Your task to perform on an android device: turn on data saver in the chrome app Image 0: 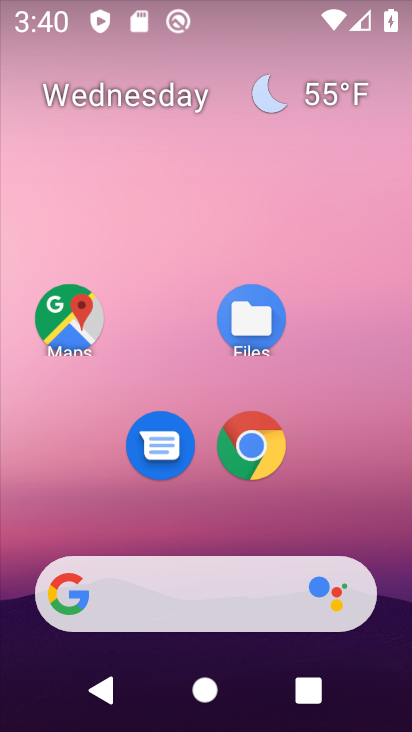
Step 0: click (224, 452)
Your task to perform on an android device: turn on data saver in the chrome app Image 1: 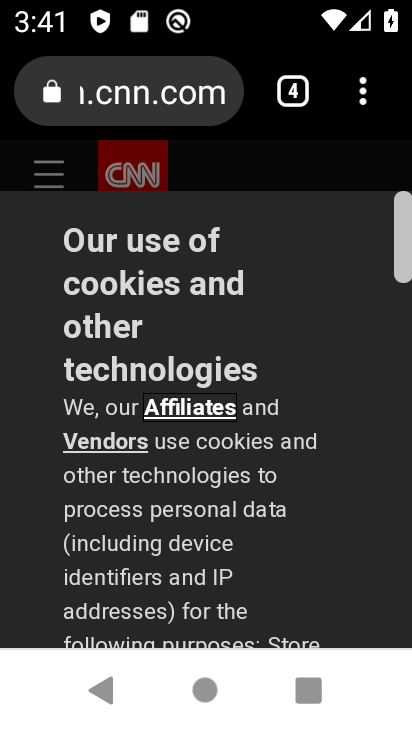
Step 1: click (356, 83)
Your task to perform on an android device: turn on data saver in the chrome app Image 2: 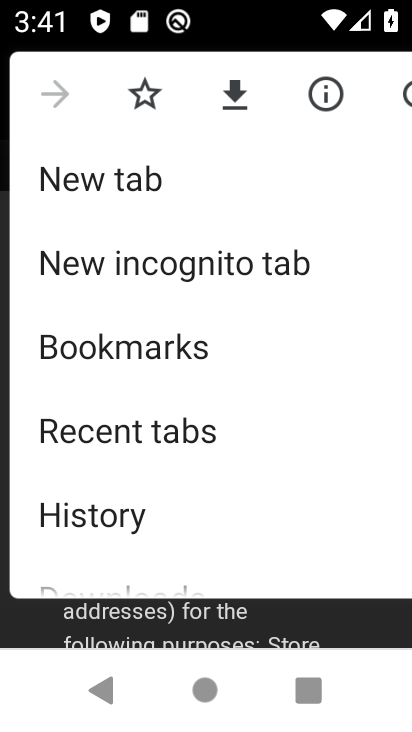
Step 2: drag from (140, 511) to (163, 185)
Your task to perform on an android device: turn on data saver in the chrome app Image 3: 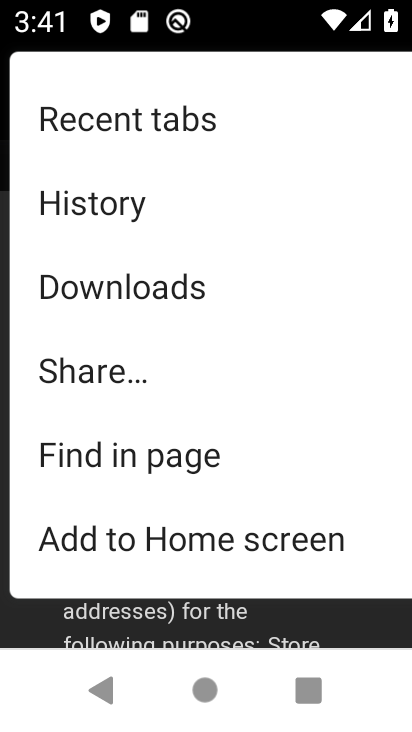
Step 3: drag from (134, 495) to (129, 169)
Your task to perform on an android device: turn on data saver in the chrome app Image 4: 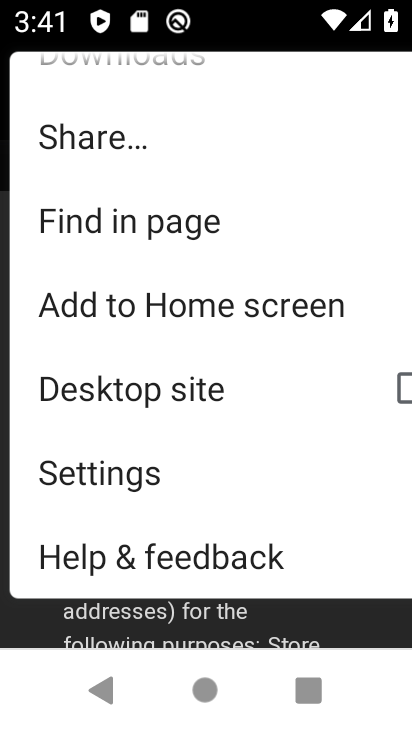
Step 4: click (102, 472)
Your task to perform on an android device: turn on data saver in the chrome app Image 5: 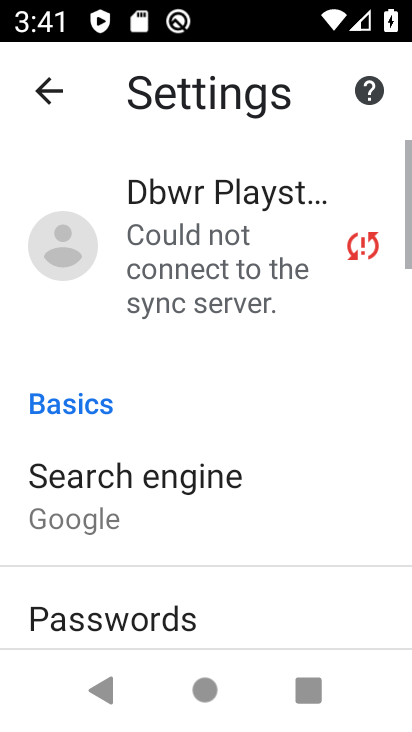
Step 5: drag from (102, 472) to (165, 153)
Your task to perform on an android device: turn on data saver in the chrome app Image 6: 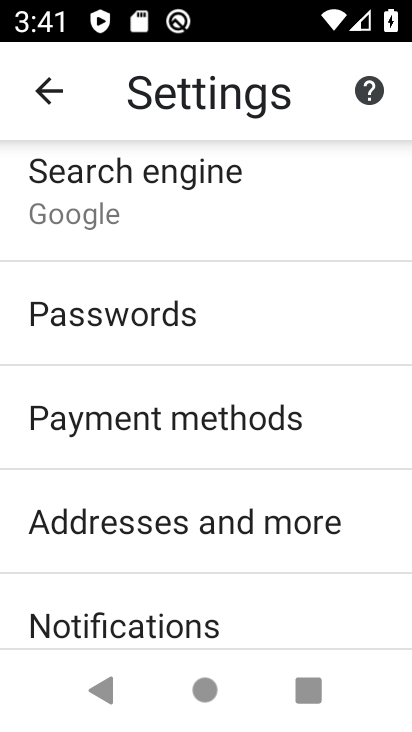
Step 6: drag from (171, 606) to (162, 294)
Your task to perform on an android device: turn on data saver in the chrome app Image 7: 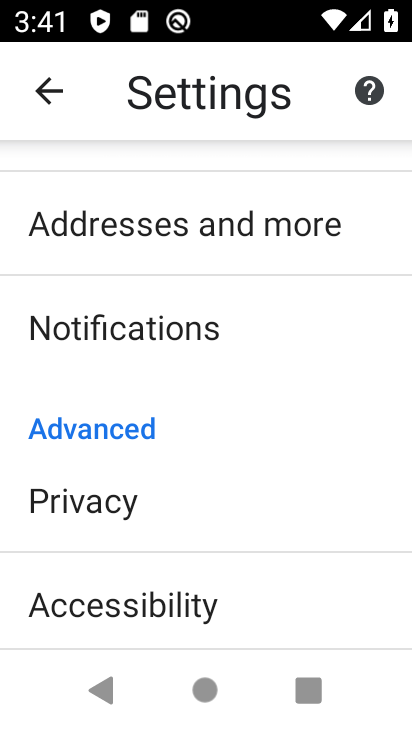
Step 7: drag from (86, 616) to (216, 143)
Your task to perform on an android device: turn on data saver in the chrome app Image 8: 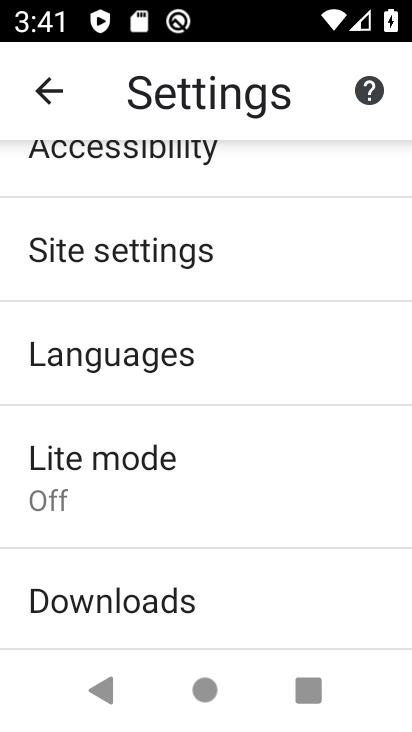
Step 8: click (85, 425)
Your task to perform on an android device: turn on data saver in the chrome app Image 9: 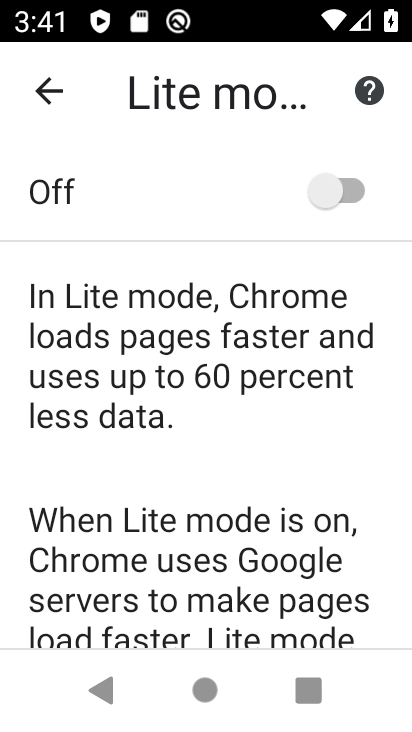
Step 9: click (346, 199)
Your task to perform on an android device: turn on data saver in the chrome app Image 10: 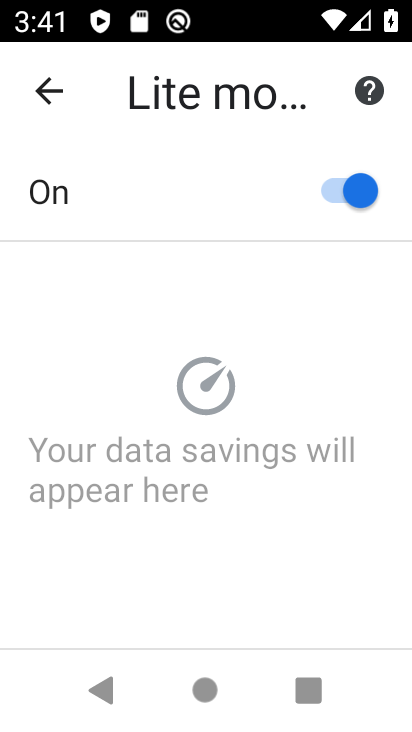
Step 10: task complete